Your task to perform on an android device: Open eBay Image 0: 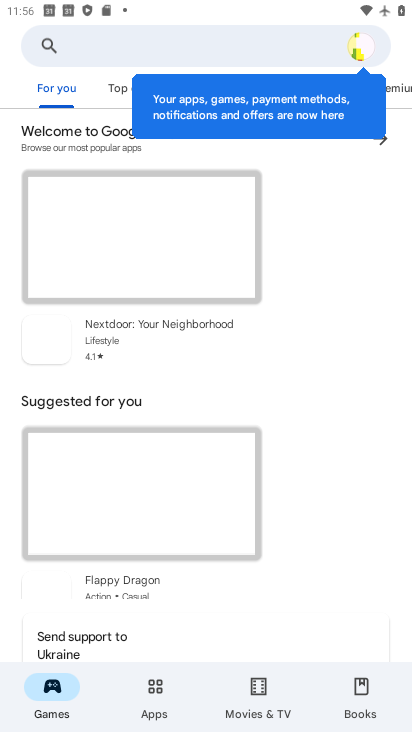
Step 0: press home button
Your task to perform on an android device: Open eBay Image 1: 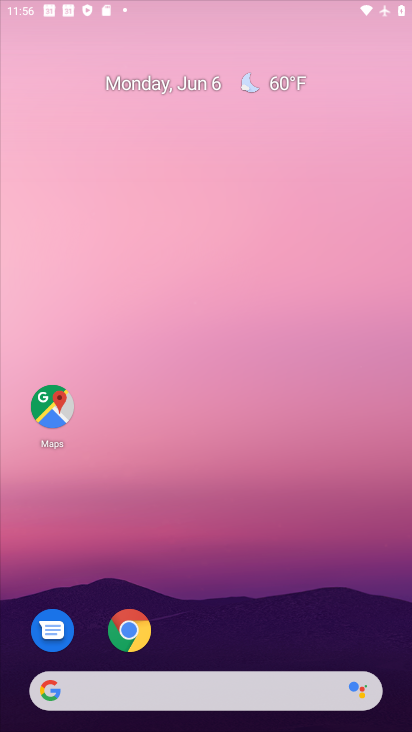
Step 1: drag from (388, 632) to (238, 2)
Your task to perform on an android device: Open eBay Image 2: 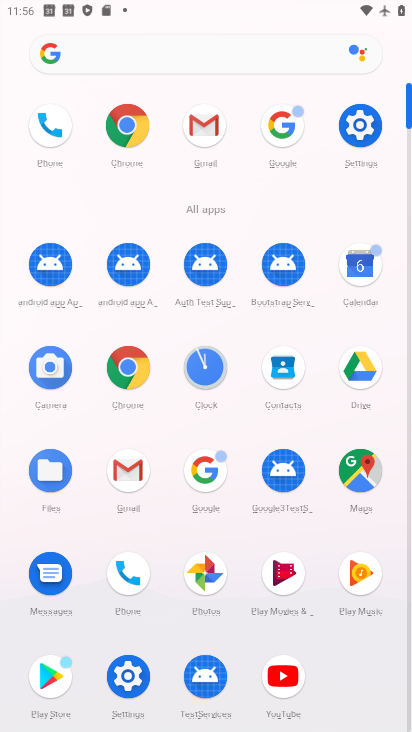
Step 2: click (188, 482)
Your task to perform on an android device: Open eBay Image 3: 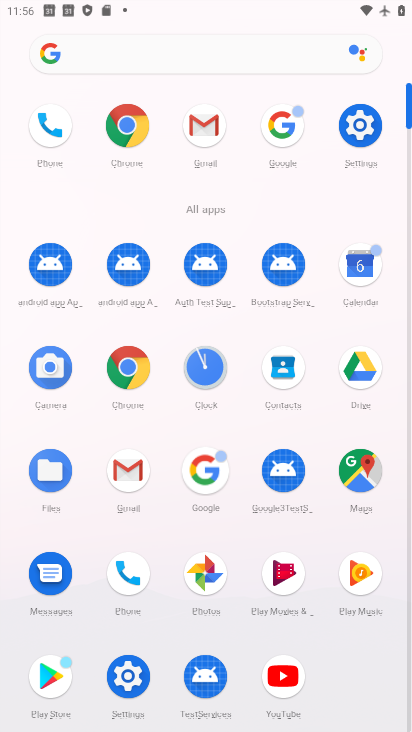
Step 3: click (218, 466)
Your task to perform on an android device: Open eBay Image 4: 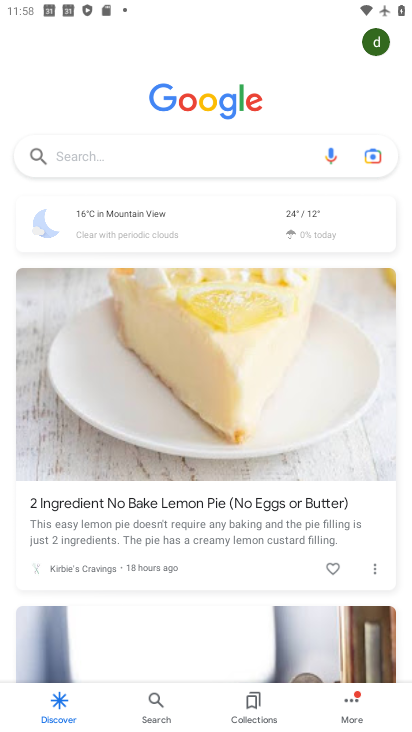
Step 4: click (183, 151)
Your task to perform on an android device: Open eBay Image 5: 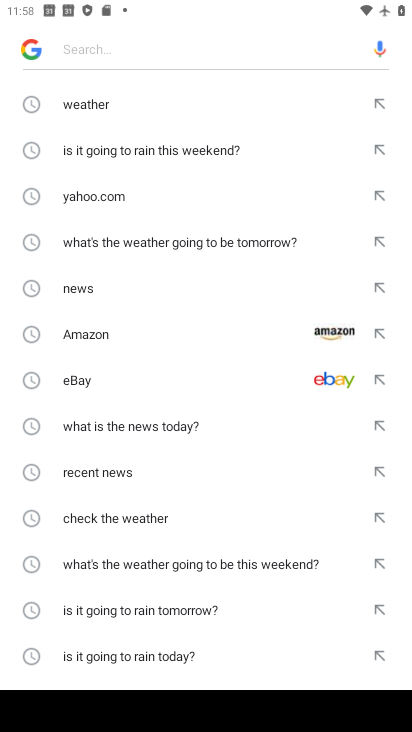
Step 5: click (99, 372)
Your task to perform on an android device: Open eBay Image 6: 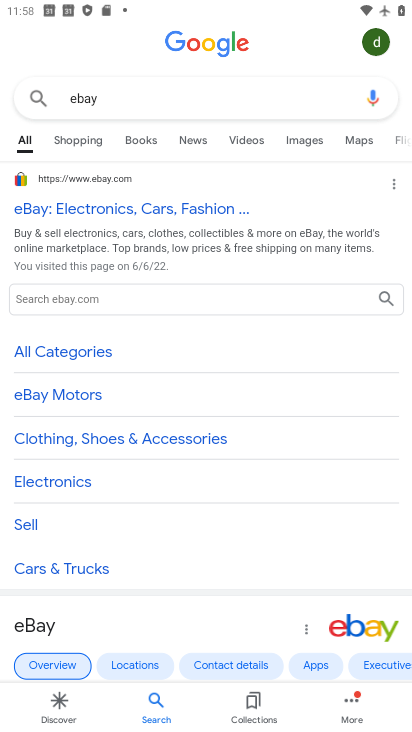
Step 6: task complete